Your task to perform on an android device: What's the weather like in Sydney? Image 0: 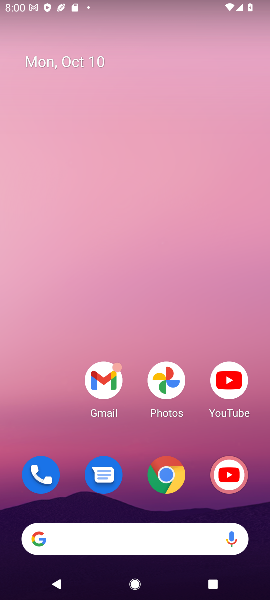
Step 0: click (158, 472)
Your task to perform on an android device: What's the weather like in Sydney? Image 1: 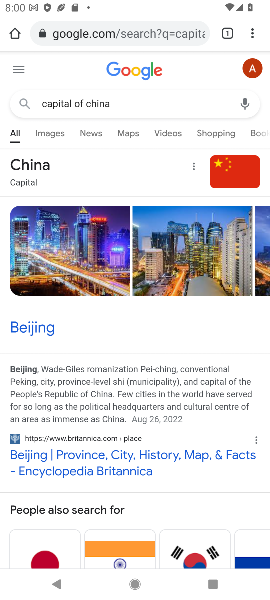
Step 1: click (125, 30)
Your task to perform on an android device: What's the weather like in Sydney? Image 2: 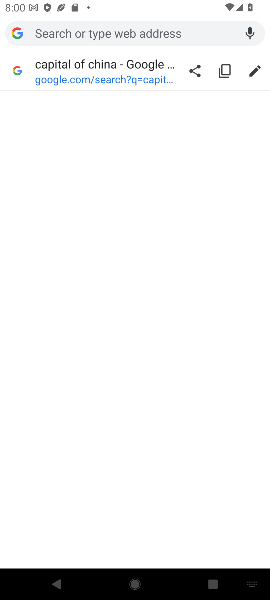
Step 2: type "What's the weather like in Sydney?"
Your task to perform on an android device: What's the weather like in Sydney? Image 3: 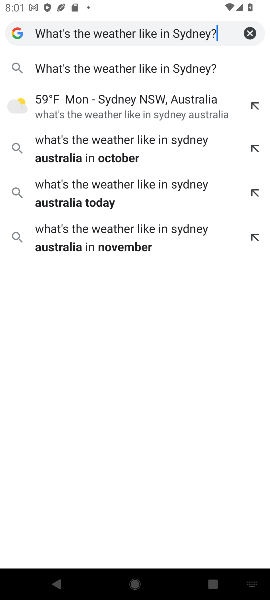
Step 3: click (118, 67)
Your task to perform on an android device: What's the weather like in Sydney? Image 4: 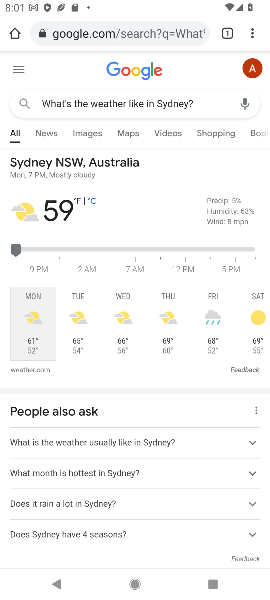
Step 4: task complete